Your task to perform on an android device: Open Chrome and go to the settings page Image 0: 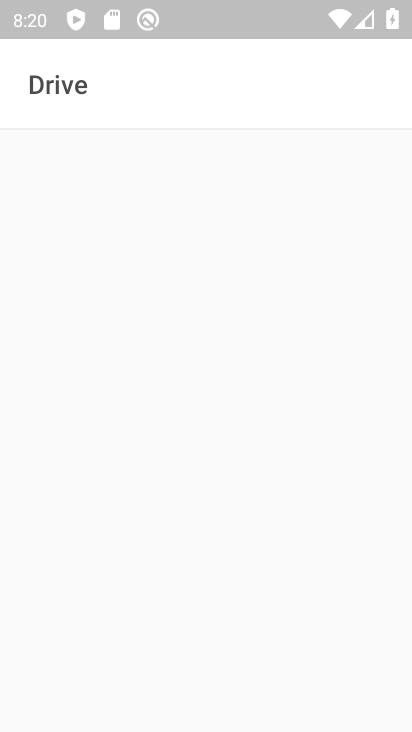
Step 0: press home button
Your task to perform on an android device: Open Chrome and go to the settings page Image 1: 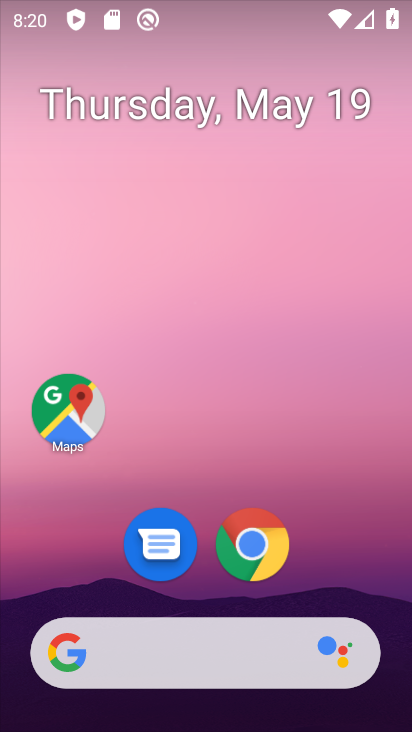
Step 1: drag from (356, 570) to (249, 26)
Your task to perform on an android device: Open Chrome and go to the settings page Image 2: 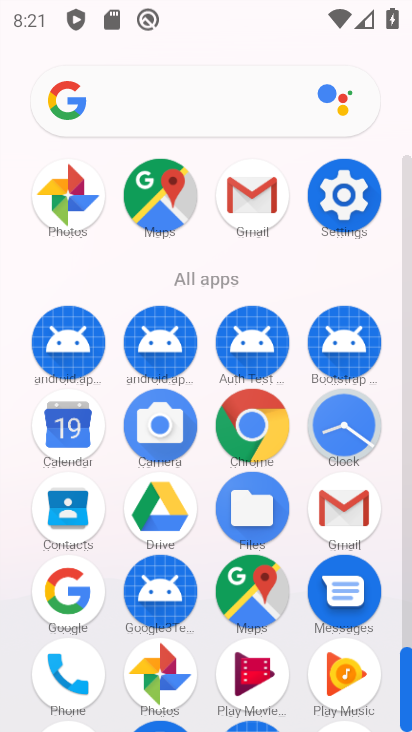
Step 2: click (234, 434)
Your task to perform on an android device: Open Chrome and go to the settings page Image 3: 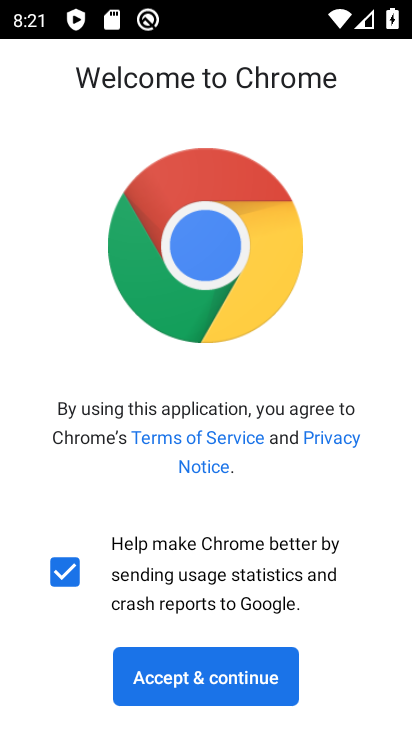
Step 3: click (218, 679)
Your task to perform on an android device: Open Chrome and go to the settings page Image 4: 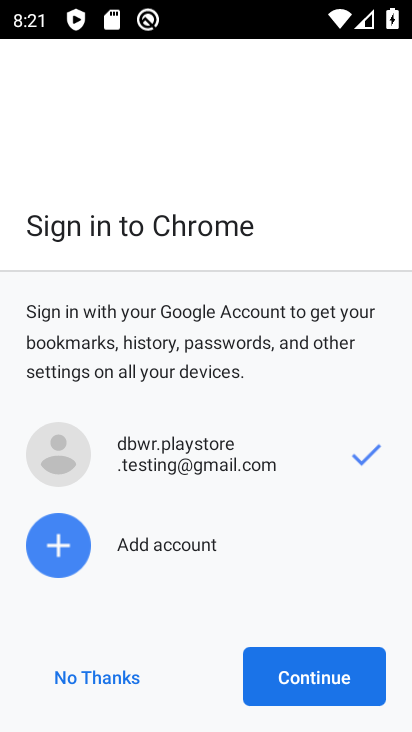
Step 4: click (218, 679)
Your task to perform on an android device: Open Chrome and go to the settings page Image 5: 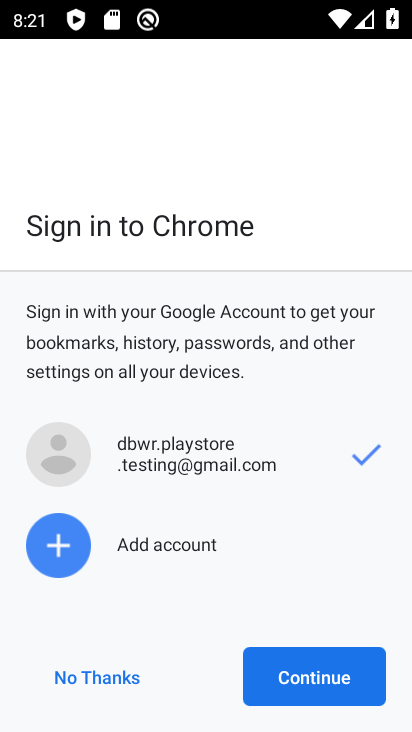
Step 5: click (286, 683)
Your task to perform on an android device: Open Chrome and go to the settings page Image 6: 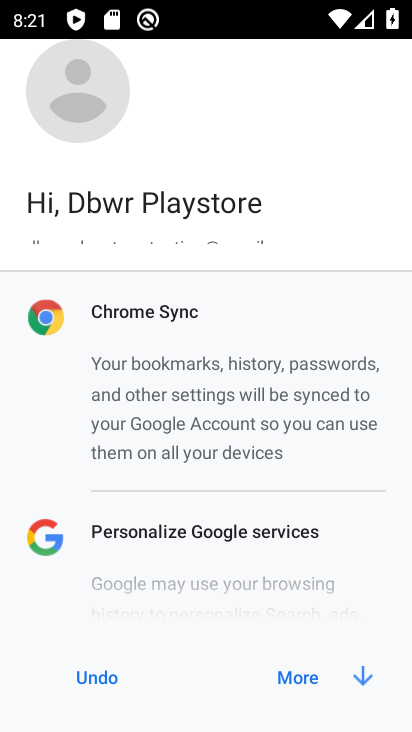
Step 6: click (286, 683)
Your task to perform on an android device: Open Chrome and go to the settings page Image 7: 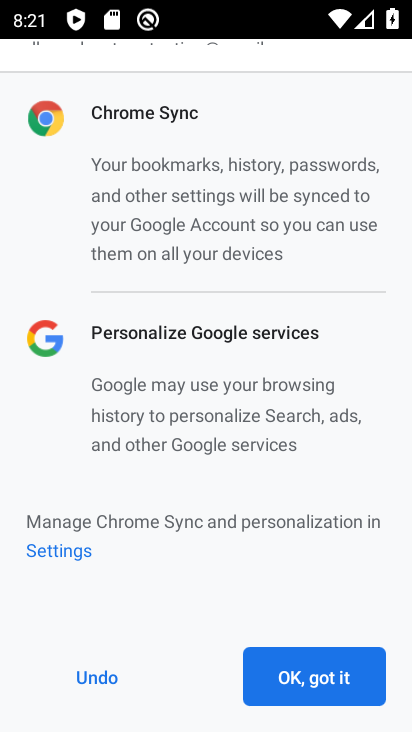
Step 7: click (286, 683)
Your task to perform on an android device: Open Chrome and go to the settings page Image 8: 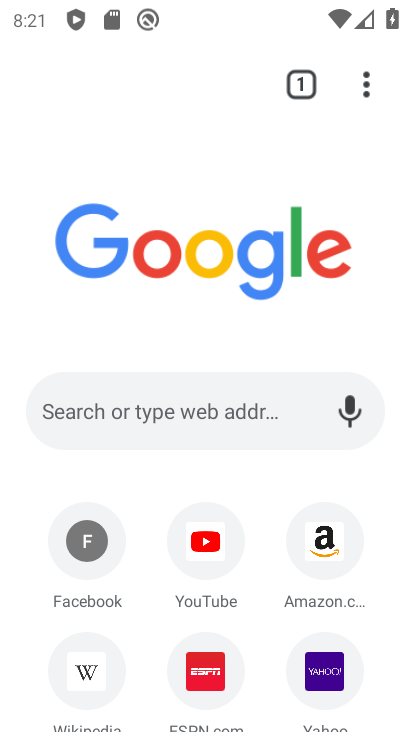
Step 8: click (368, 81)
Your task to perform on an android device: Open Chrome and go to the settings page Image 9: 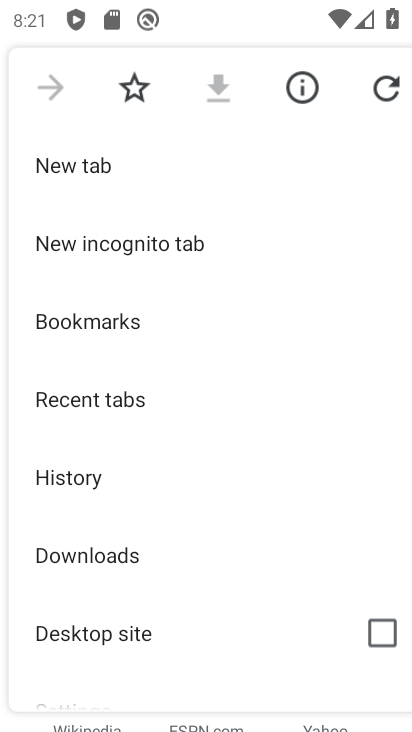
Step 9: drag from (171, 646) to (238, 209)
Your task to perform on an android device: Open Chrome and go to the settings page Image 10: 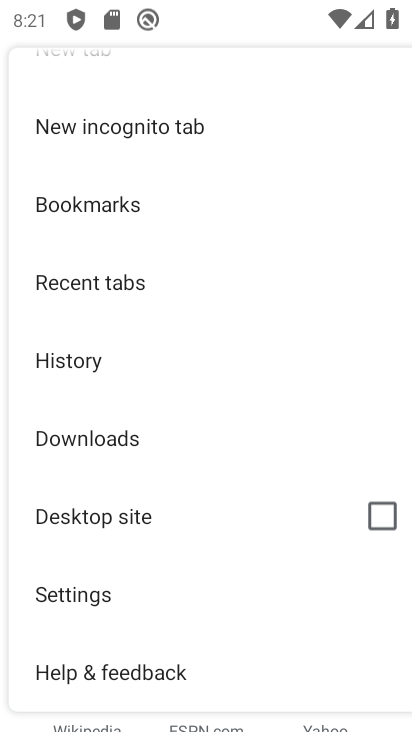
Step 10: click (83, 612)
Your task to perform on an android device: Open Chrome and go to the settings page Image 11: 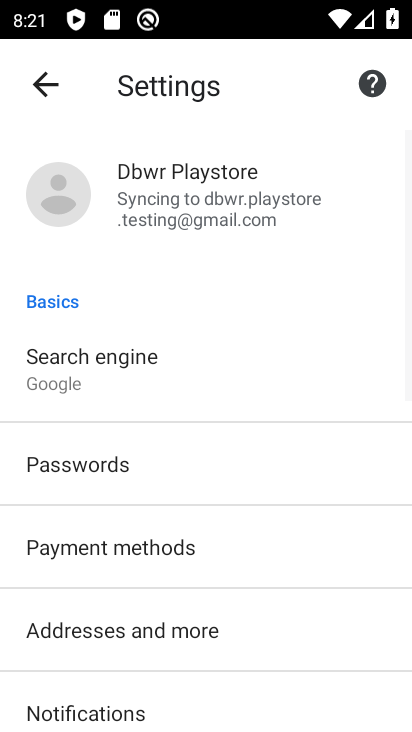
Step 11: task complete